Your task to perform on an android device: toggle notification dots Image 0: 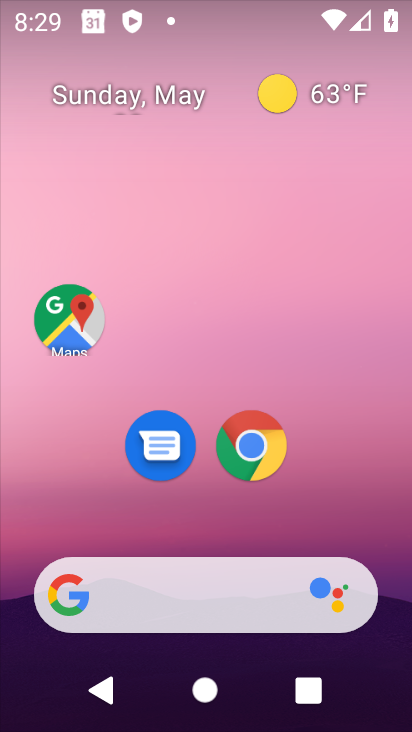
Step 0: drag from (367, 286) to (372, 98)
Your task to perform on an android device: toggle notification dots Image 1: 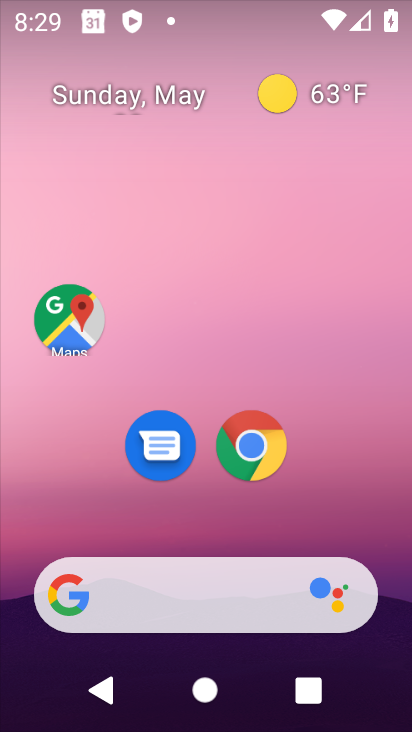
Step 1: drag from (381, 517) to (383, 99)
Your task to perform on an android device: toggle notification dots Image 2: 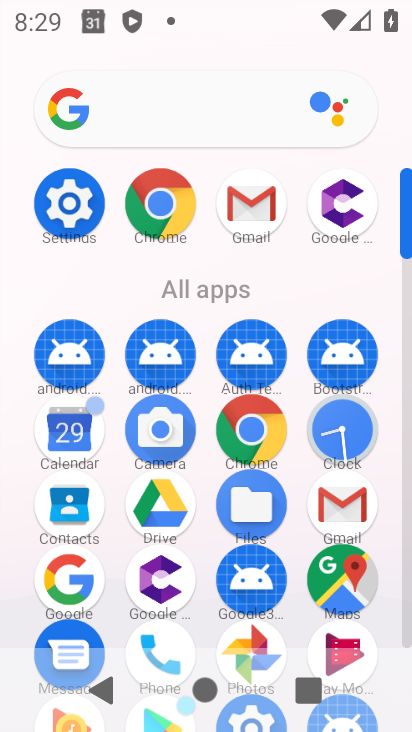
Step 2: click (80, 219)
Your task to perform on an android device: toggle notification dots Image 3: 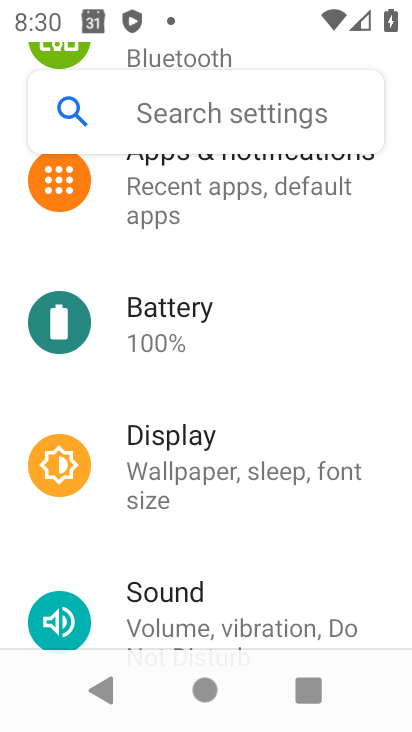
Step 3: drag from (339, 549) to (338, 389)
Your task to perform on an android device: toggle notification dots Image 4: 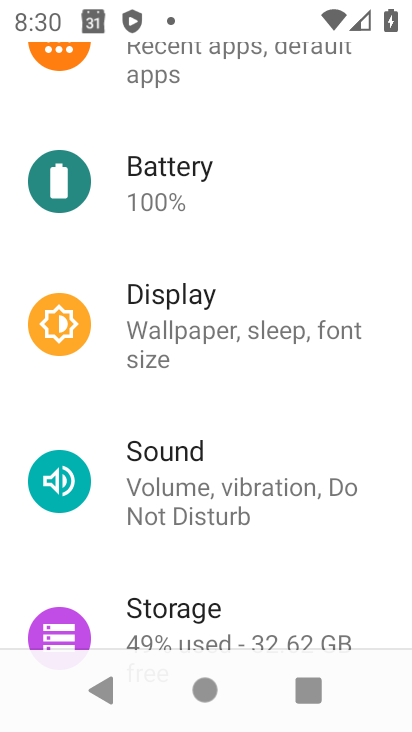
Step 4: drag from (353, 557) to (354, 400)
Your task to perform on an android device: toggle notification dots Image 5: 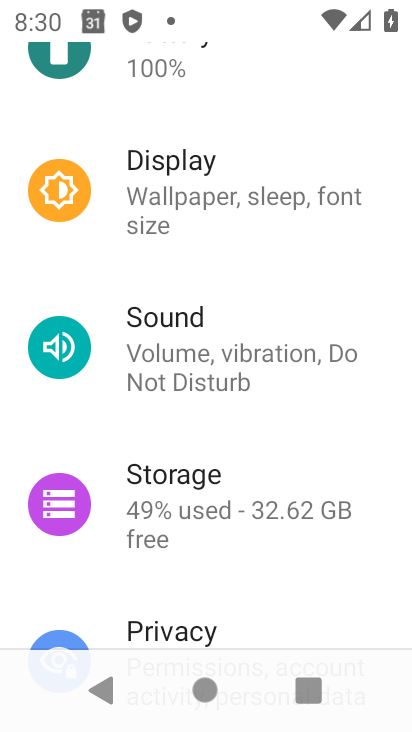
Step 5: drag from (347, 569) to (373, 418)
Your task to perform on an android device: toggle notification dots Image 6: 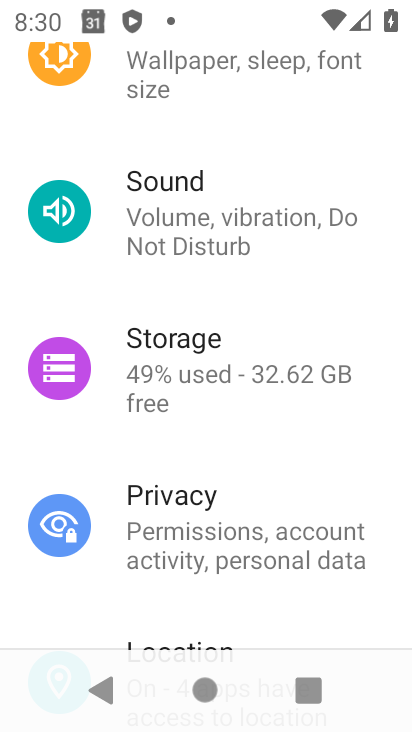
Step 6: drag from (344, 288) to (339, 409)
Your task to perform on an android device: toggle notification dots Image 7: 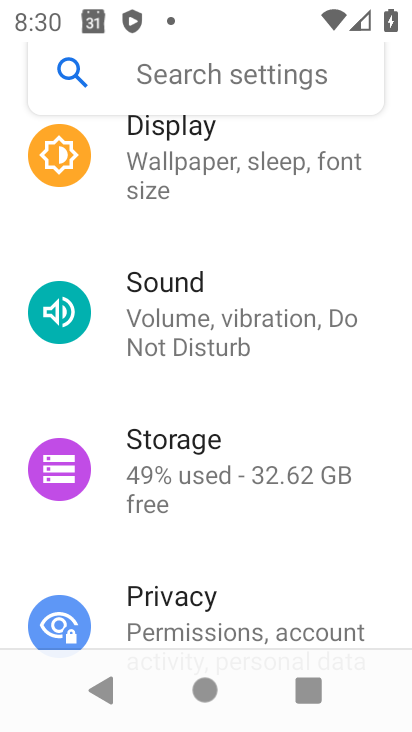
Step 7: drag from (365, 235) to (365, 366)
Your task to perform on an android device: toggle notification dots Image 8: 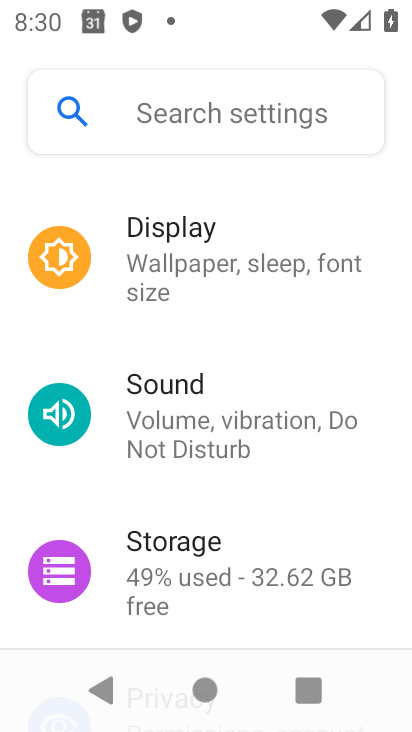
Step 8: drag from (366, 224) to (367, 344)
Your task to perform on an android device: toggle notification dots Image 9: 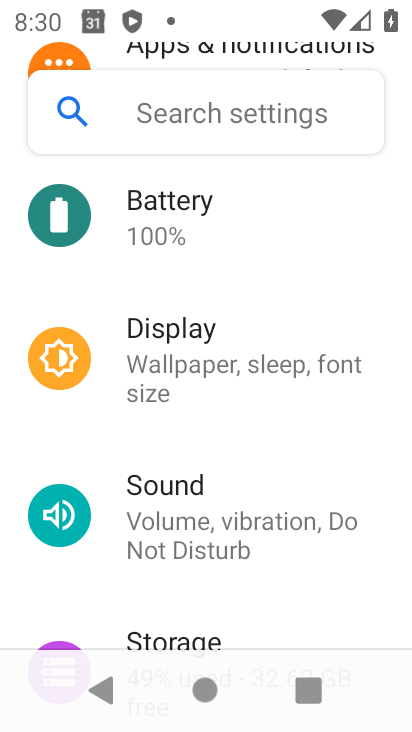
Step 9: drag from (378, 198) to (370, 303)
Your task to perform on an android device: toggle notification dots Image 10: 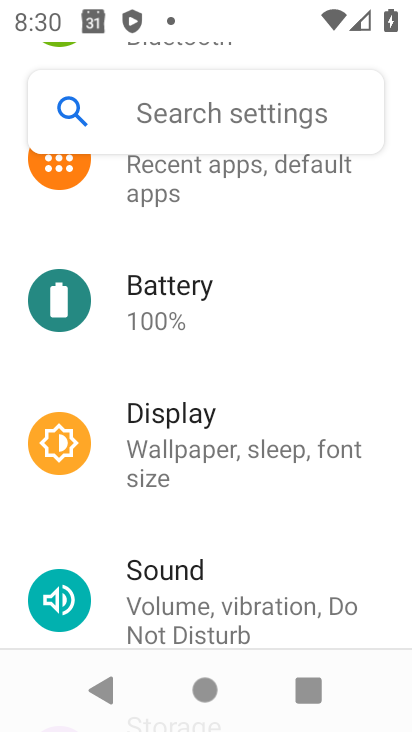
Step 10: drag from (358, 192) to (348, 329)
Your task to perform on an android device: toggle notification dots Image 11: 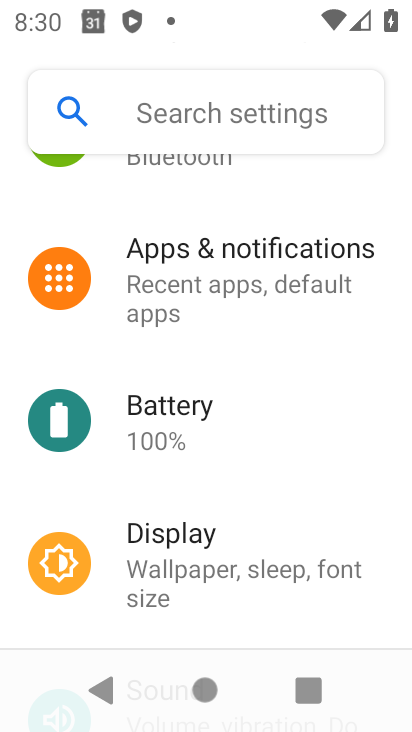
Step 11: drag from (360, 201) to (342, 343)
Your task to perform on an android device: toggle notification dots Image 12: 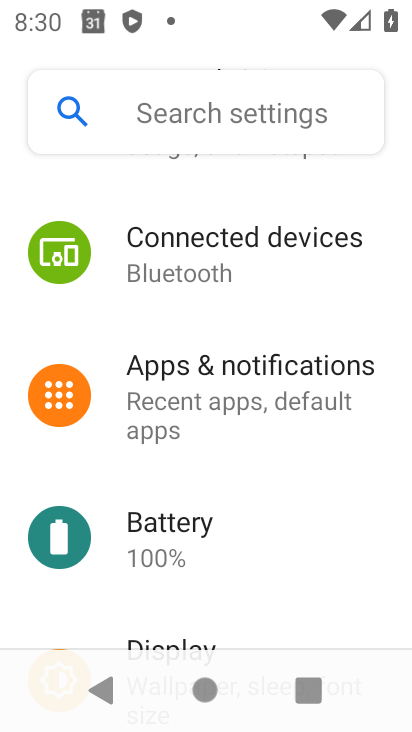
Step 12: click (311, 379)
Your task to perform on an android device: toggle notification dots Image 13: 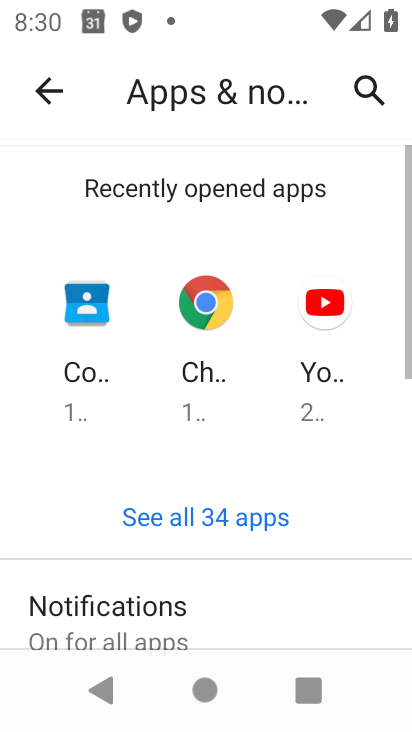
Step 13: drag from (255, 565) to (266, 229)
Your task to perform on an android device: toggle notification dots Image 14: 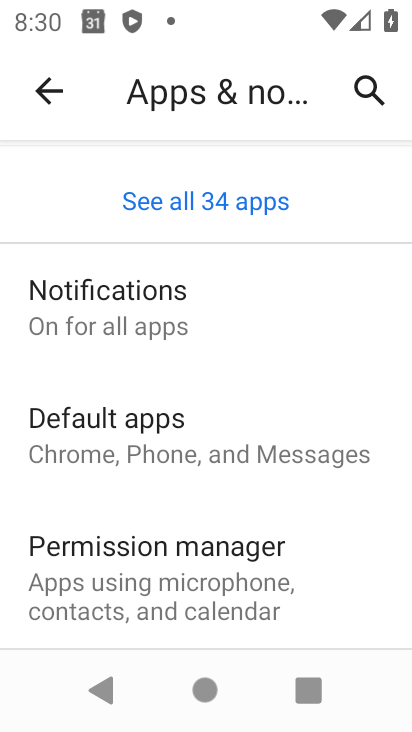
Step 14: click (230, 353)
Your task to perform on an android device: toggle notification dots Image 15: 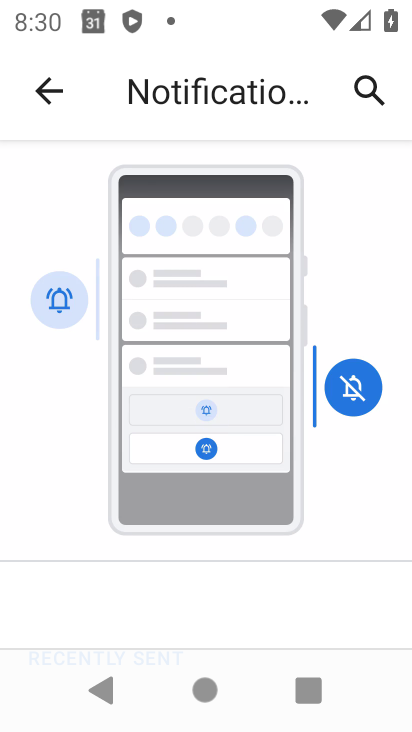
Step 15: drag from (351, 551) to (359, 362)
Your task to perform on an android device: toggle notification dots Image 16: 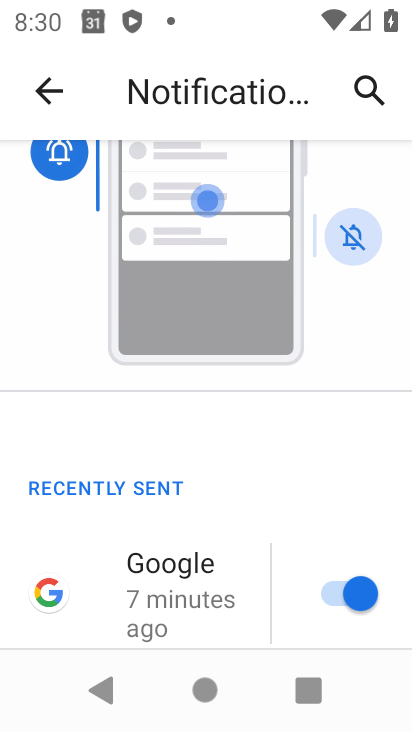
Step 16: drag from (298, 609) to (272, 330)
Your task to perform on an android device: toggle notification dots Image 17: 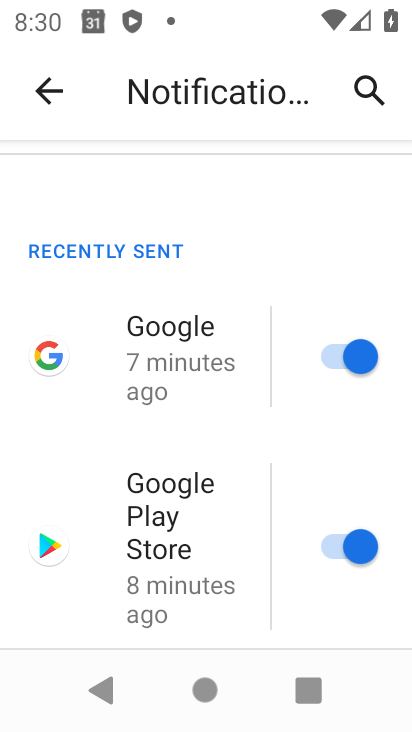
Step 17: drag from (251, 608) to (247, 366)
Your task to perform on an android device: toggle notification dots Image 18: 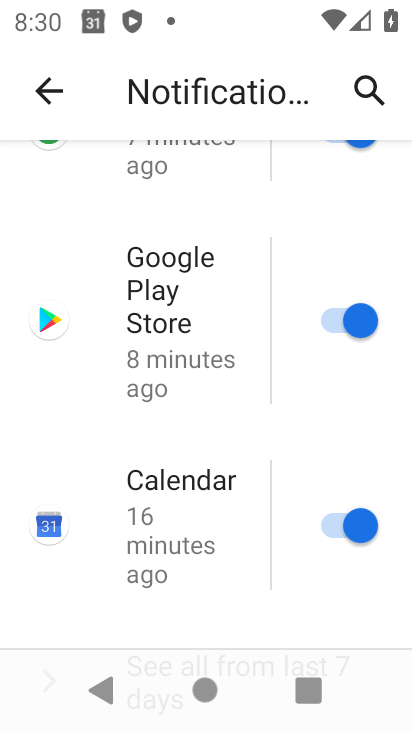
Step 18: drag from (221, 573) to (249, 340)
Your task to perform on an android device: toggle notification dots Image 19: 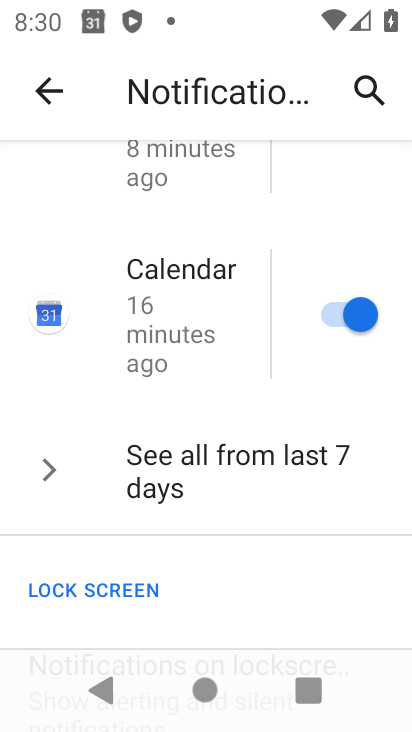
Step 19: drag from (234, 578) to (245, 350)
Your task to perform on an android device: toggle notification dots Image 20: 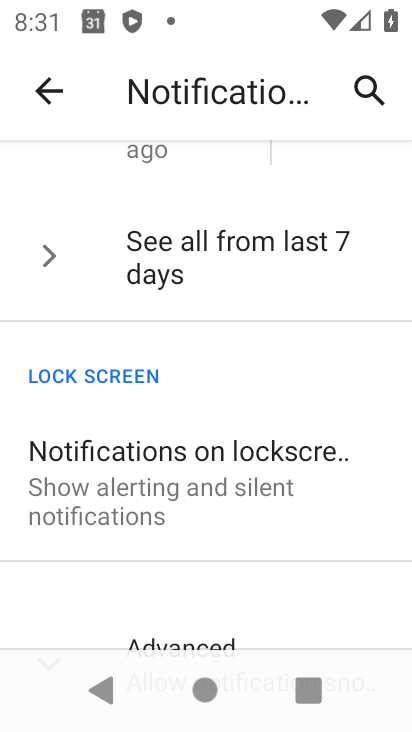
Step 20: drag from (274, 570) to (269, 376)
Your task to perform on an android device: toggle notification dots Image 21: 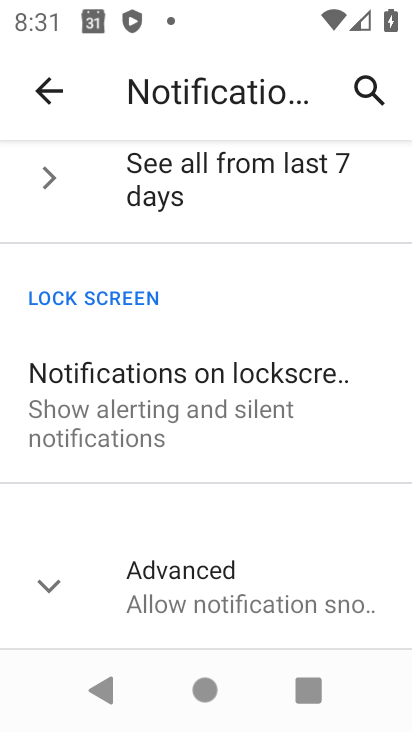
Step 21: click (268, 582)
Your task to perform on an android device: toggle notification dots Image 22: 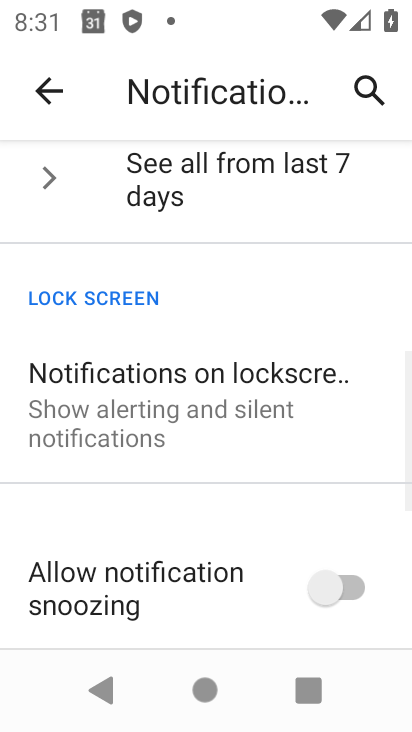
Step 22: drag from (268, 593) to (287, 344)
Your task to perform on an android device: toggle notification dots Image 23: 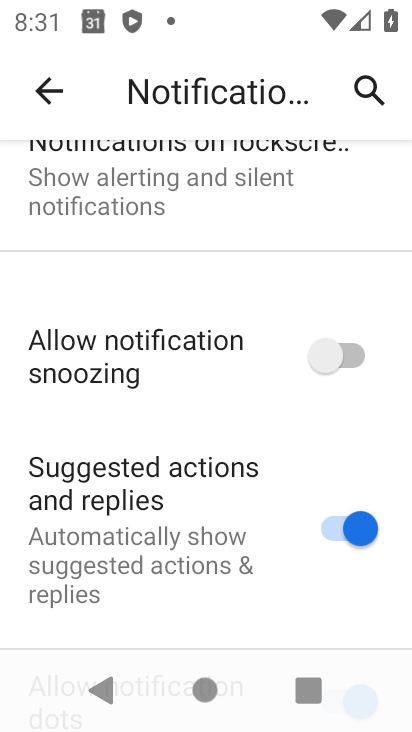
Step 23: drag from (298, 610) to (294, 374)
Your task to perform on an android device: toggle notification dots Image 24: 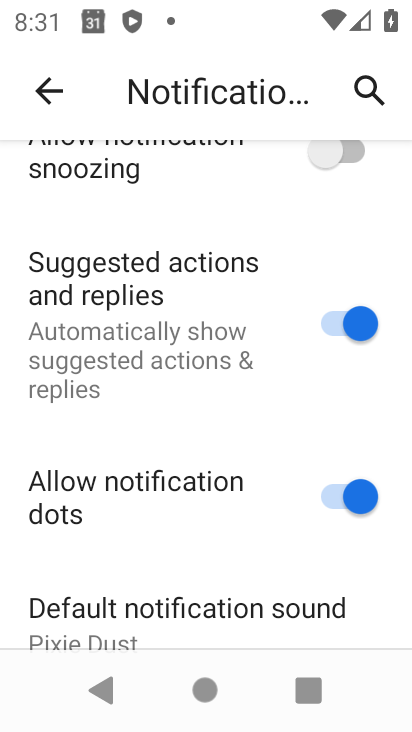
Step 24: click (341, 515)
Your task to perform on an android device: toggle notification dots Image 25: 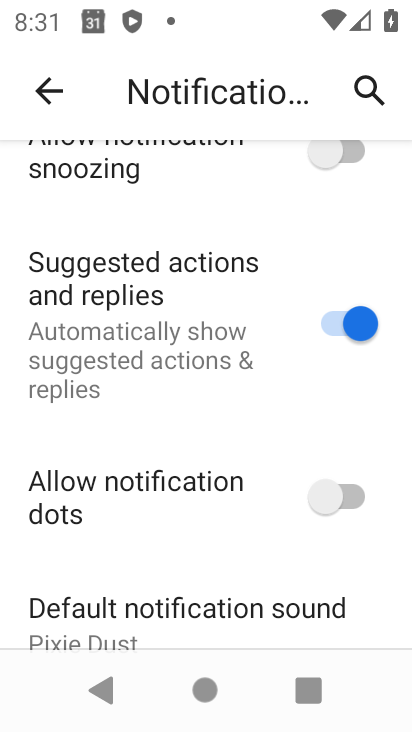
Step 25: task complete